Your task to perform on an android device: Go to Yahoo.com Image 0: 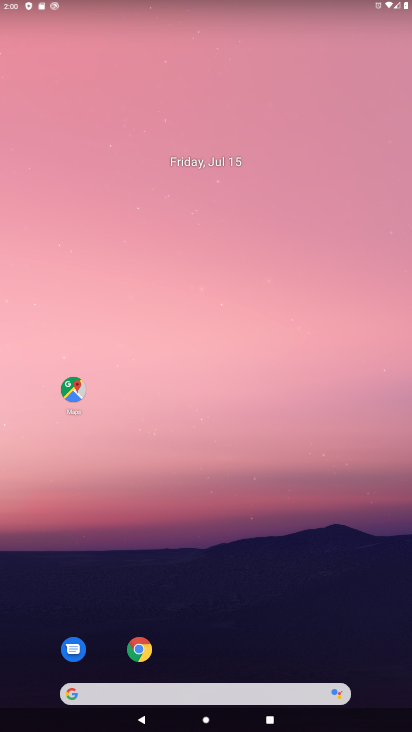
Step 0: click (204, 695)
Your task to perform on an android device: Go to Yahoo.com Image 1: 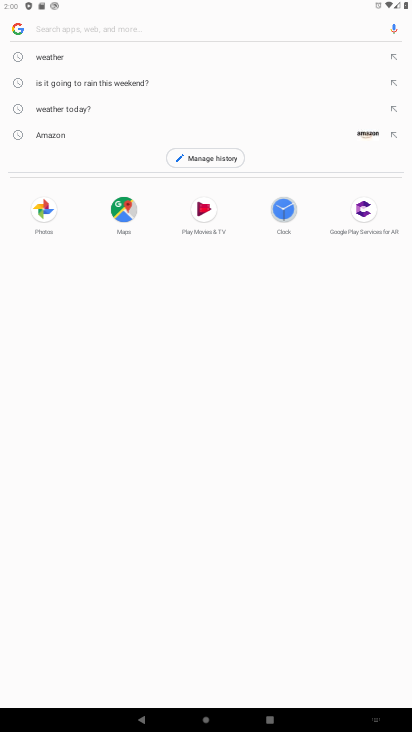
Step 1: click (20, 21)
Your task to perform on an android device: Go to Yahoo.com Image 2: 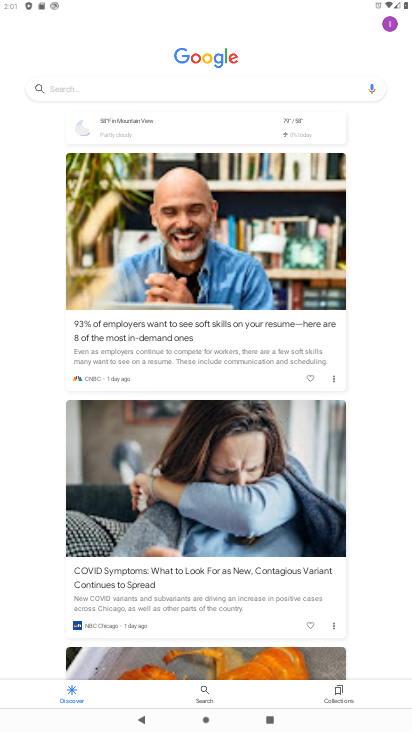
Step 2: click (214, 55)
Your task to perform on an android device: Go to Yahoo.com Image 3: 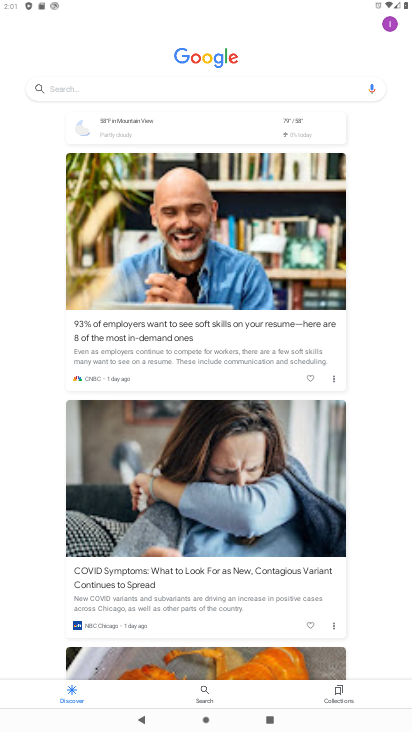
Step 3: click (184, 89)
Your task to perform on an android device: Go to Yahoo.com Image 4: 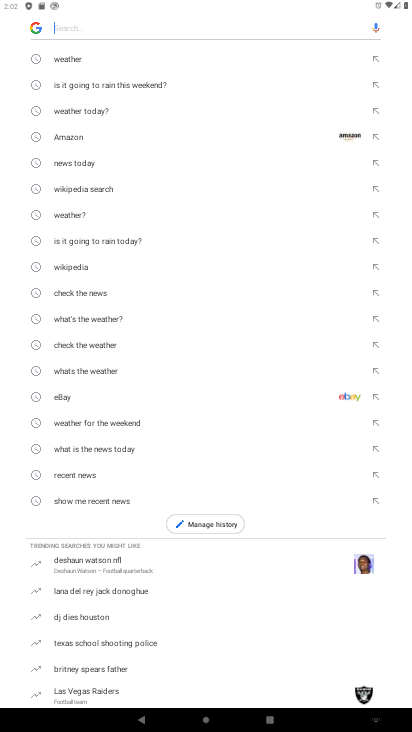
Step 4: type "yahoo"
Your task to perform on an android device: Go to Yahoo.com Image 5: 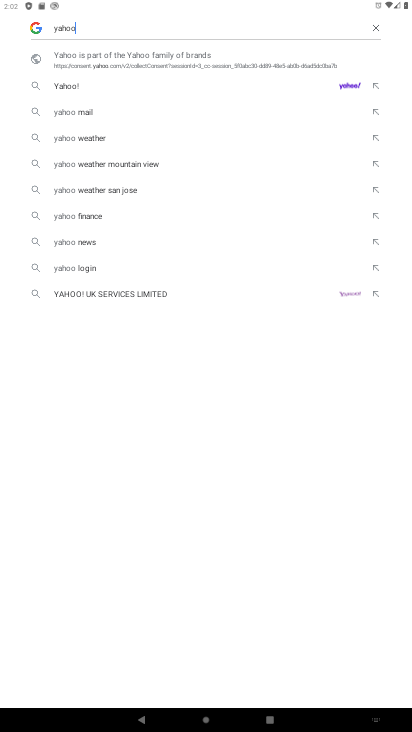
Step 5: click (57, 83)
Your task to perform on an android device: Go to Yahoo.com Image 6: 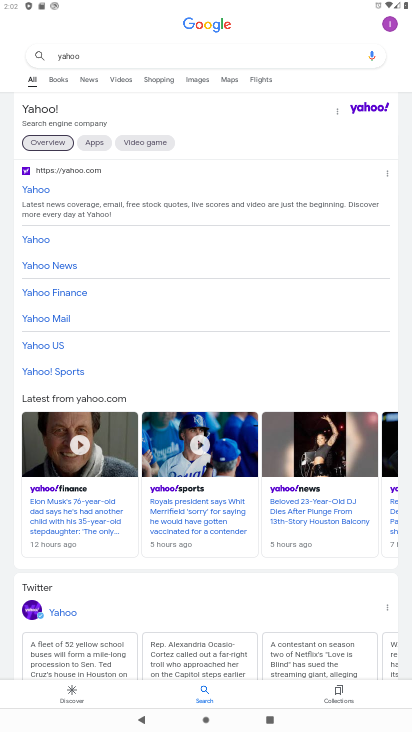
Step 6: task complete